Your task to perform on an android device: Open Google Chrome Image 0: 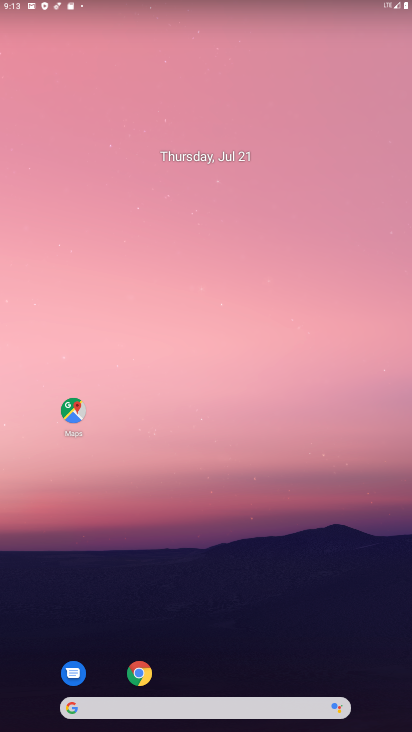
Step 0: drag from (193, 649) to (230, 42)
Your task to perform on an android device: Open Google Chrome Image 1: 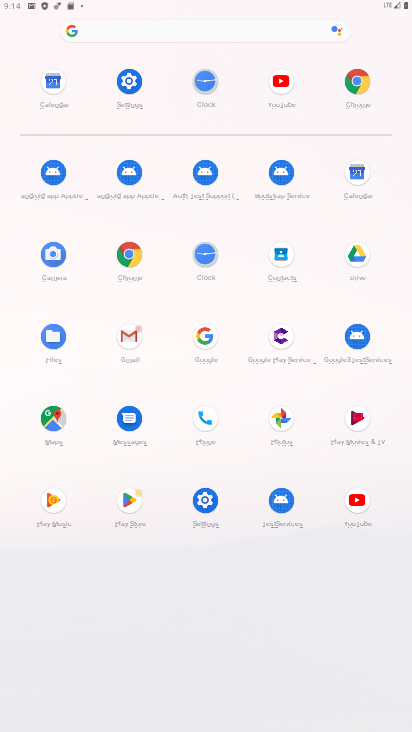
Step 1: click (124, 261)
Your task to perform on an android device: Open Google Chrome Image 2: 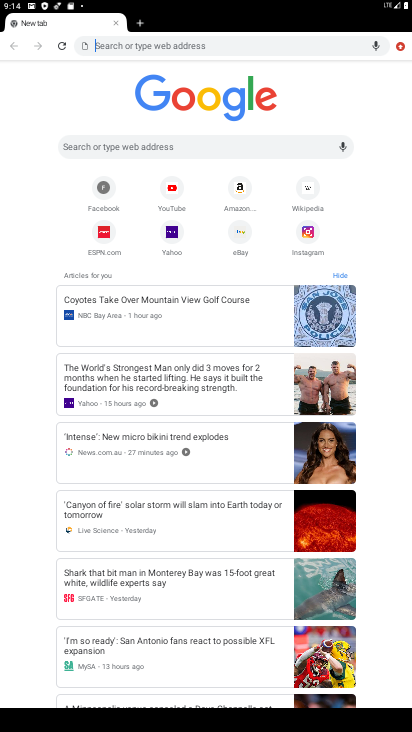
Step 2: task complete